Your task to perform on an android device: Is it going to rain tomorrow? Image 0: 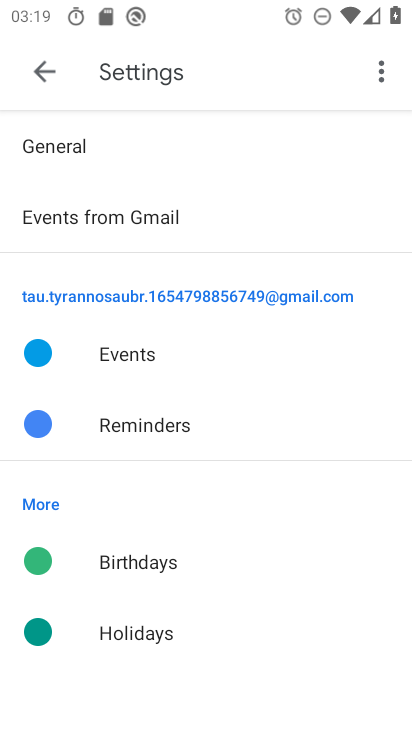
Step 0: press home button
Your task to perform on an android device: Is it going to rain tomorrow? Image 1: 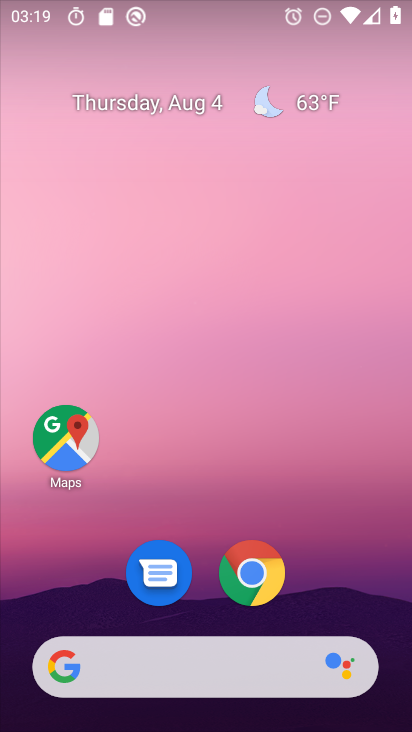
Step 1: drag from (346, 551) to (344, 85)
Your task to perform on an android device: Is it going to rain tomorrow? Image 2: 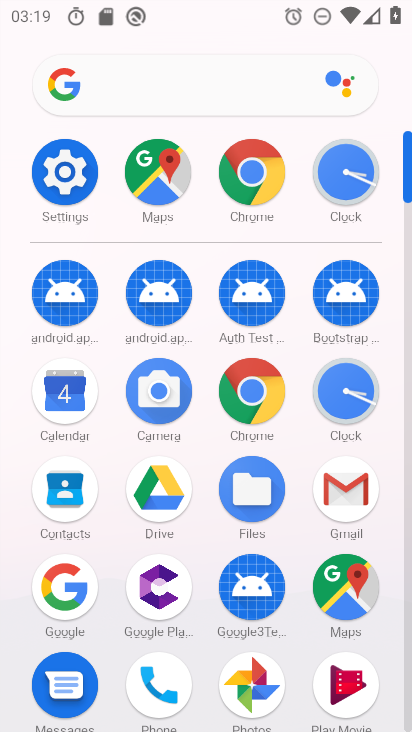
Step 2: press home button
Your task to perform on an android device: Is it going to rain tomorrow? Image 3: 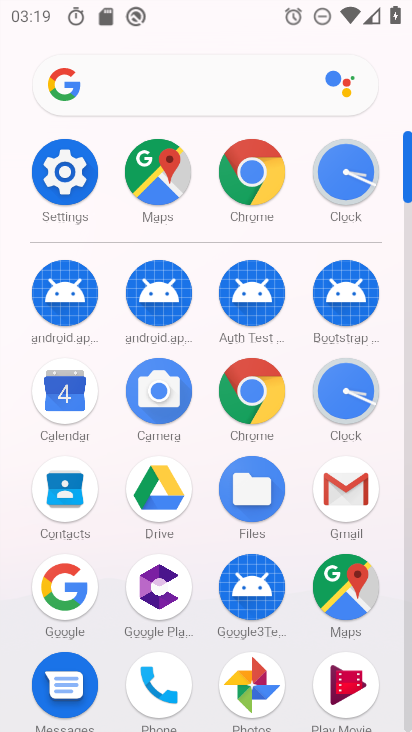
Step 3: press home button
Your task to perform on an android device: Is it going to rain tomorrow? Image 4: 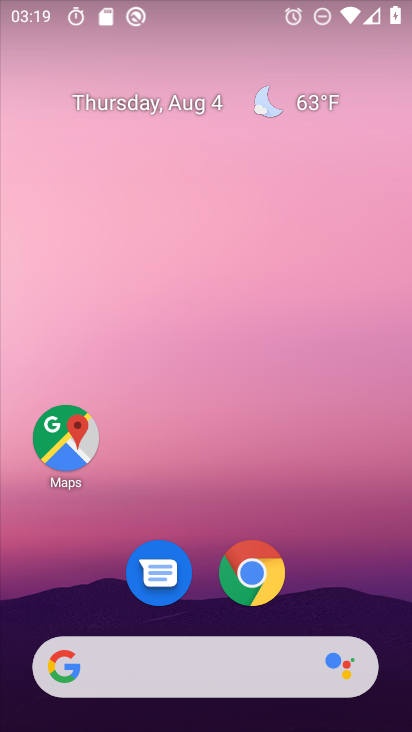
Step 4: press home button
Your task to perform on an android device: Is it going to rain tomorrow? Image 5: 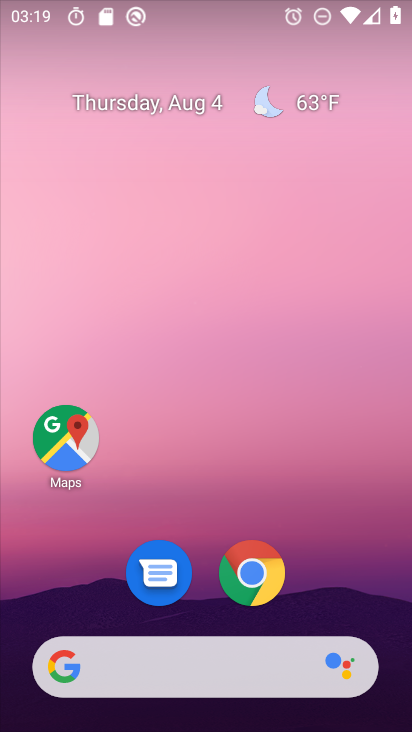
Step 5: click (298, 99)
Your task to perform on an android device: Is it going to rain tomorrow? Image 6: 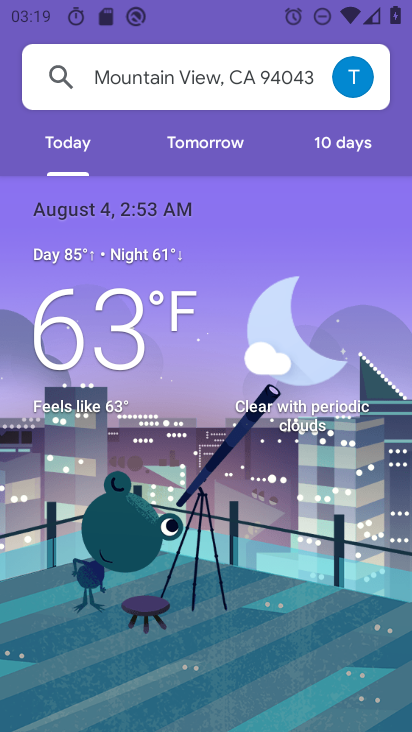
Step 6: click (205, 139)
Your task to perform on an android device: Is it going to rain tomorrow? Image 7: 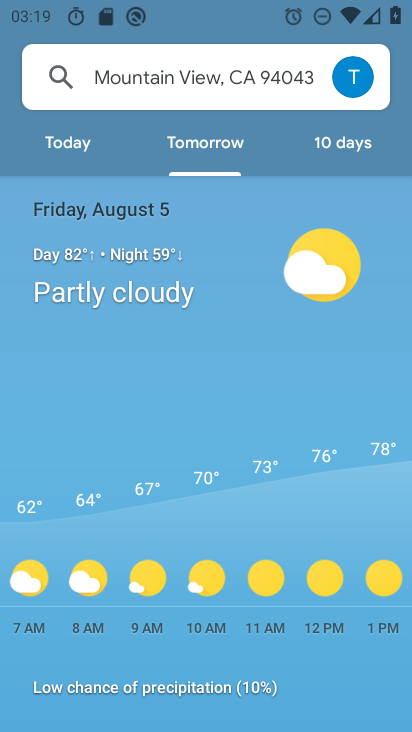
Step 7: task complete